Your task to perform on an android device: Search for hotels in Zurich Image 0: 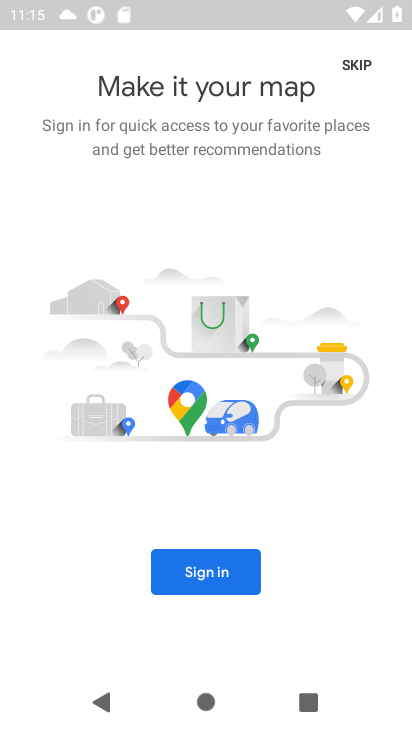
Step 0: press home button
Your task to perform on an android device: Search for hotels in Zurich Image 1: 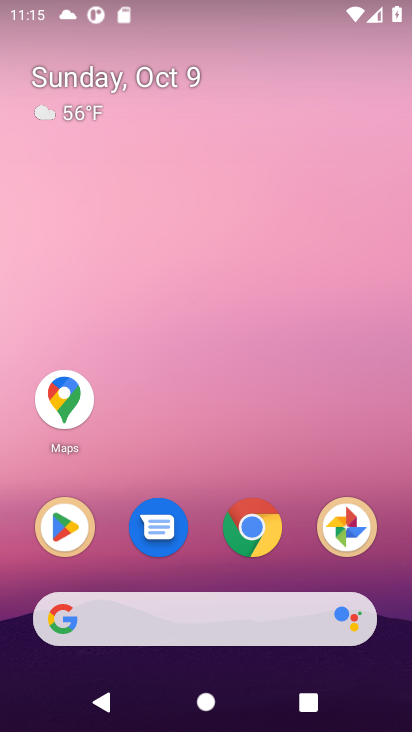
Step 1: click (218, 614)
Your task to perform on an android device: Search for hotels in Zurich Image 2: 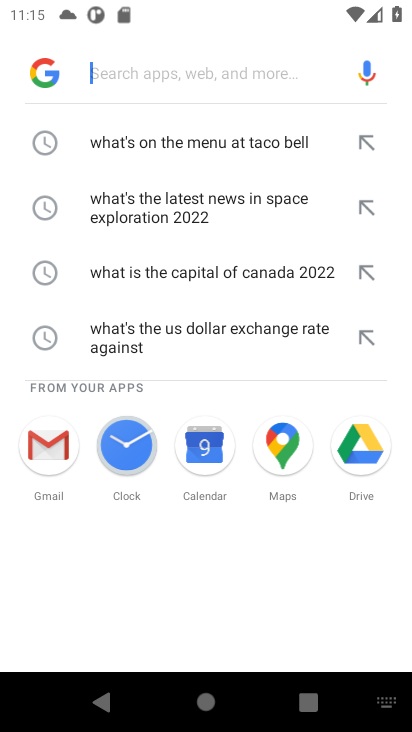
Step 2: click (133, 73)
Your task to perform on an android device: Search for hotels in Zurich Image 3: 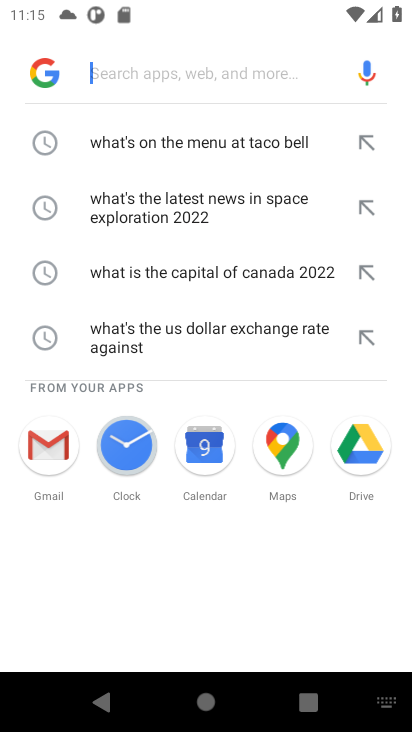
Step 3: type "hotels in Zurich"
Your task to perform on an android device: Search for hotels in Zurich Image 4: 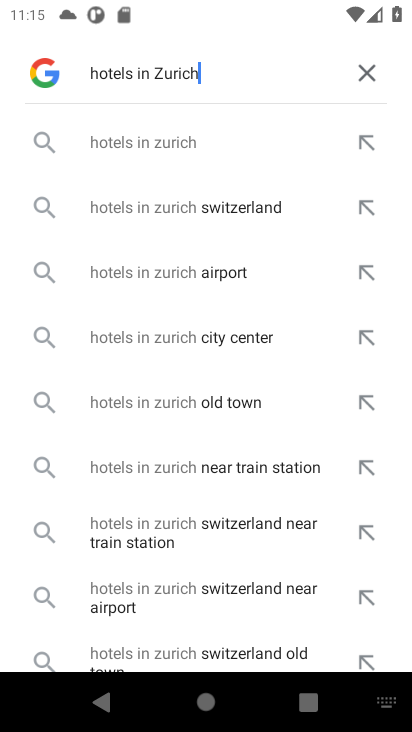
Step 4: click (155, 145)
Your task to perform on an android device: Search for hotels in Zurich Image 5: 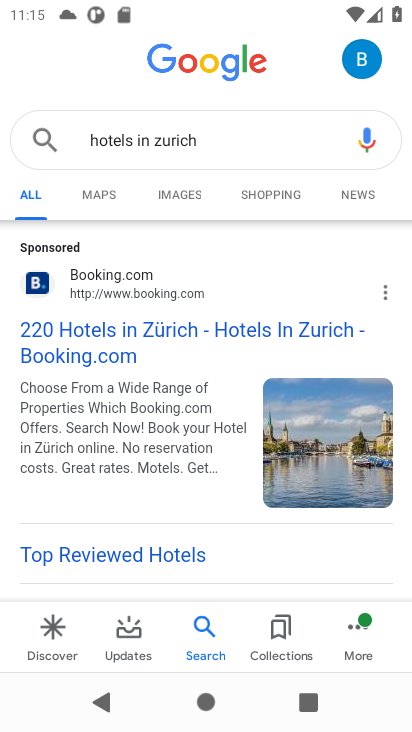
Step 5: click (85, 366)
Your task to perform on an android device: Search for hotels in Zurich Image 6: 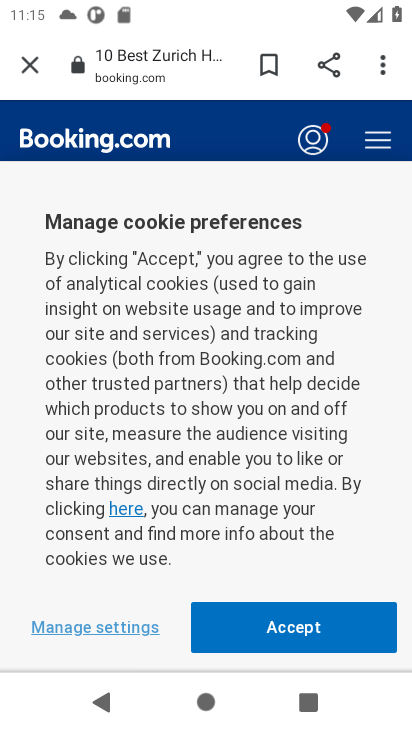
Step 6: click (224, 615)
Your task to perform on an android device: Search for hotels in Zurich Image 7: 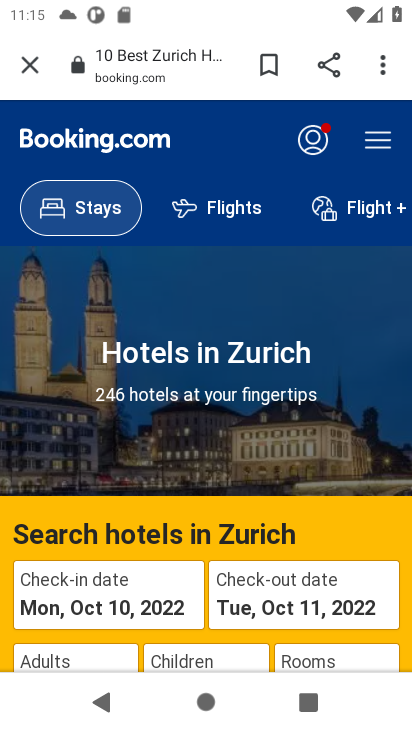
Step 7: task complete